Your task to perform on an android device: add a label to a message in the gmail app Image 0: 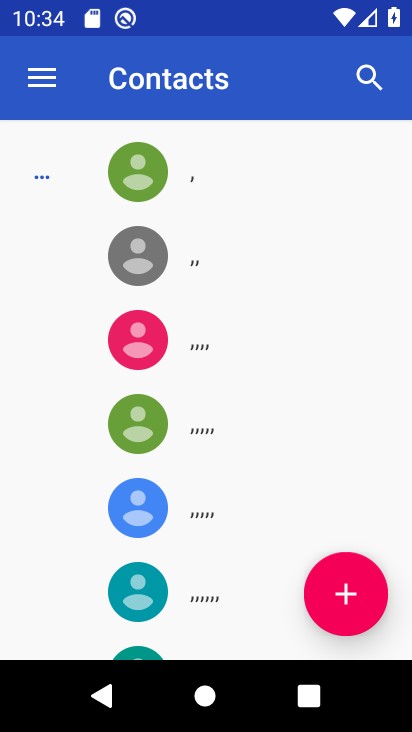
Step 0: press home button
Your task to perform on an android device: add a label to a message in the gmail app Image 1: 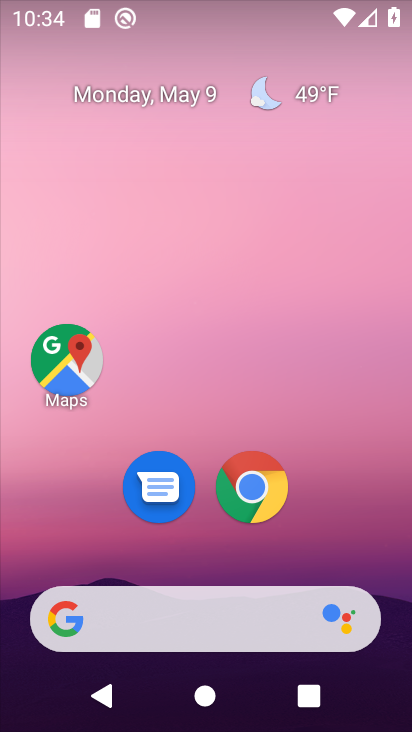
Step 1: drag from (319, 508) to (103, 97)
Your task to perform on an android device: add a label to a message in the gmail app Image 2: 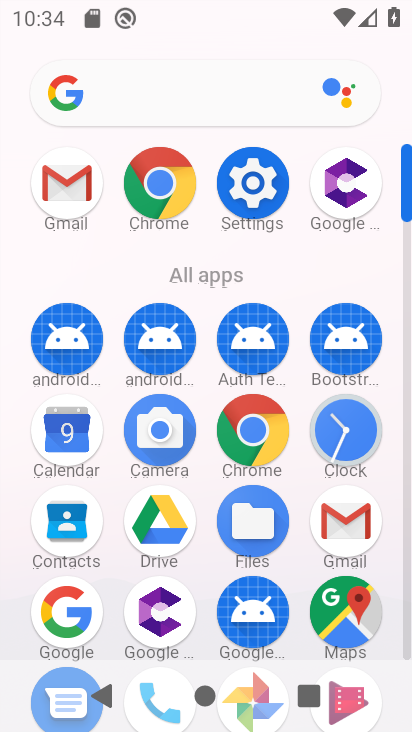
Step 2: click (348, 533)
Your task to perform on an android device: add a label to a message in the gmail app Image 3: 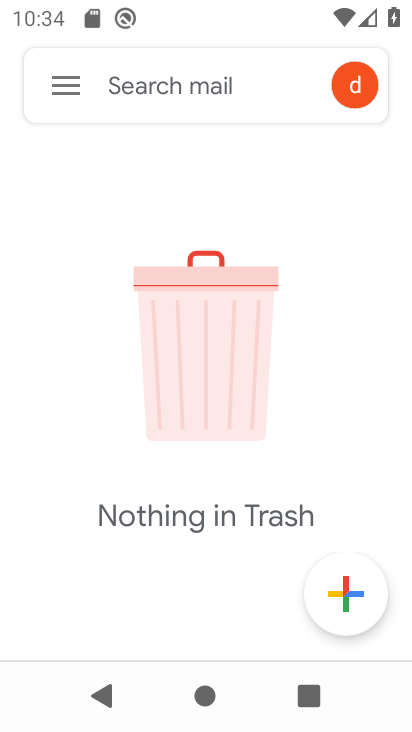
Step 3: click (55, 82)
Your task to perform on an android device: add a label to a message in the gmail app Image 4: 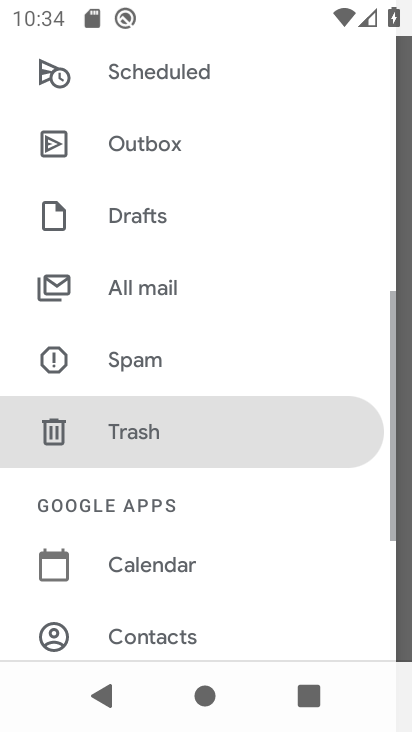
Step 4: drag from (188, 188) to (161, 618)
Your task to perform on an android device: add a label to a message in the gmail app Image 5: 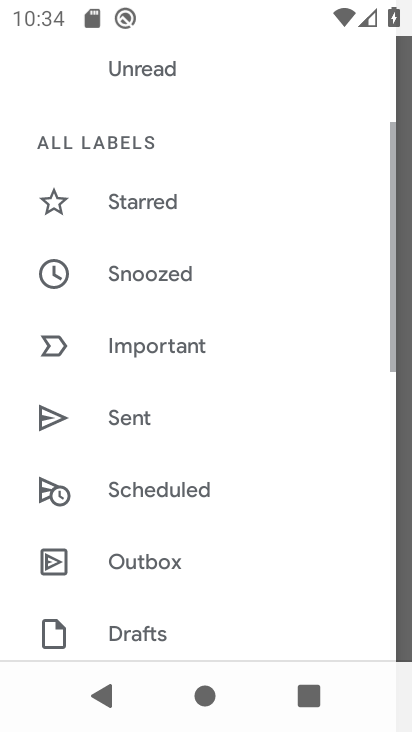
Step 5: drag from (230, 172) to (194, 578)
Your task to perform on an android device: add a label to a message in the gmail app Image 6: 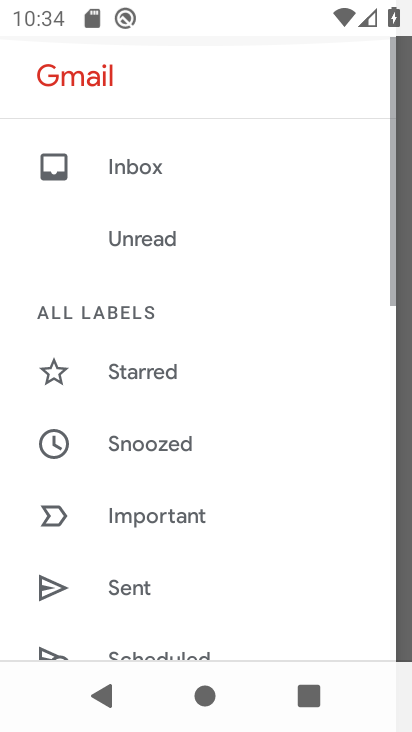
Step 6: click (148, 169)
Your task to perform on an android device: add a label to a message in the gmail app Image 7: 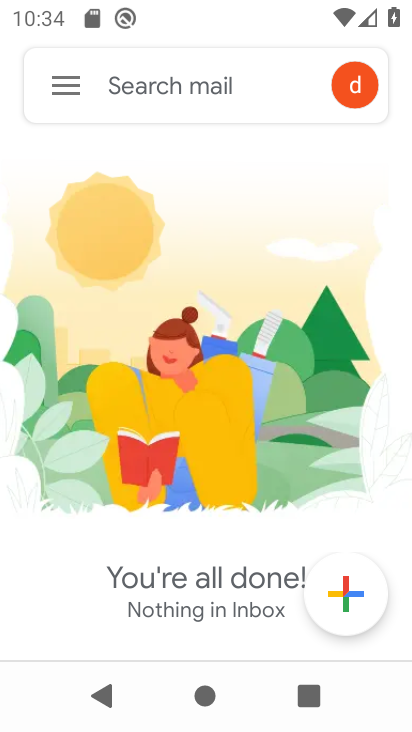
Step 7: task complete